Your task to perform on an android device: Go to Maps Image 0: 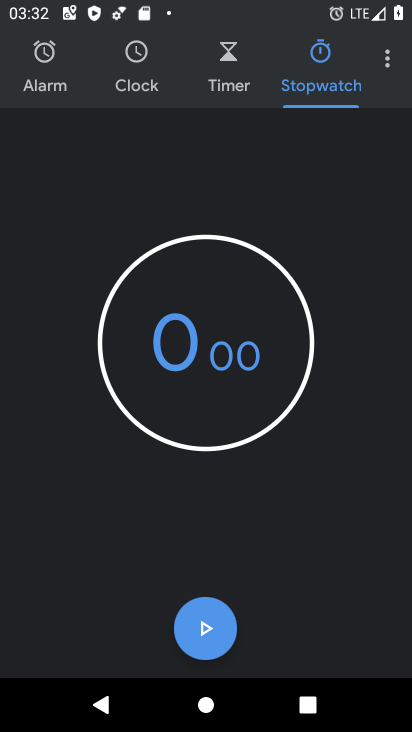
Step 0: press home button
Your task to perform on an android device: Go to Maps Image 1: 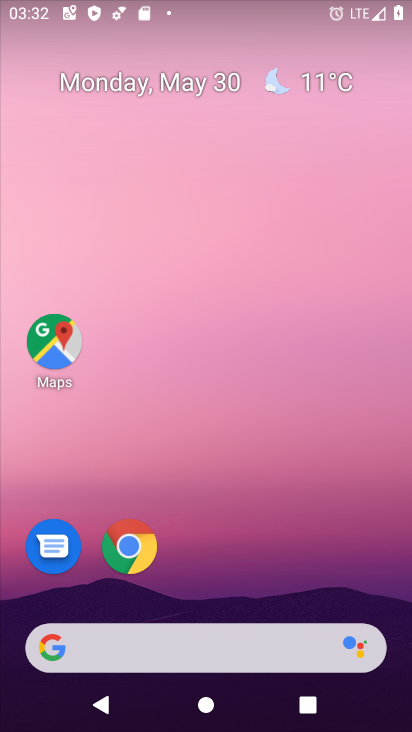
Step 1: click (55, 334)
Your task to perform on an android device: Go to Maps Image 2: 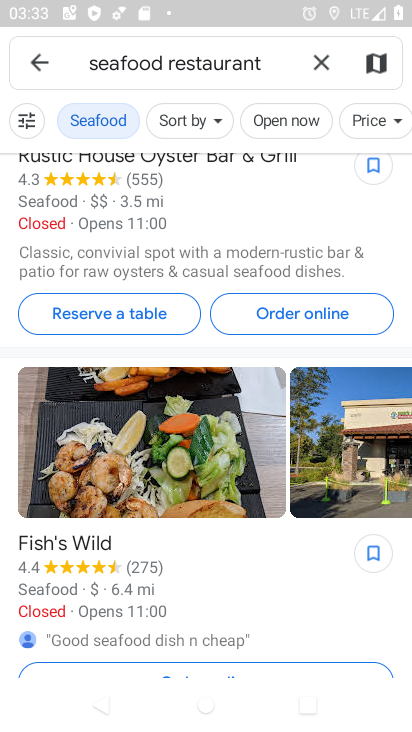
Step 2: click (48, 57)
Your task to perform on an android device: Go to Maps Image 3: 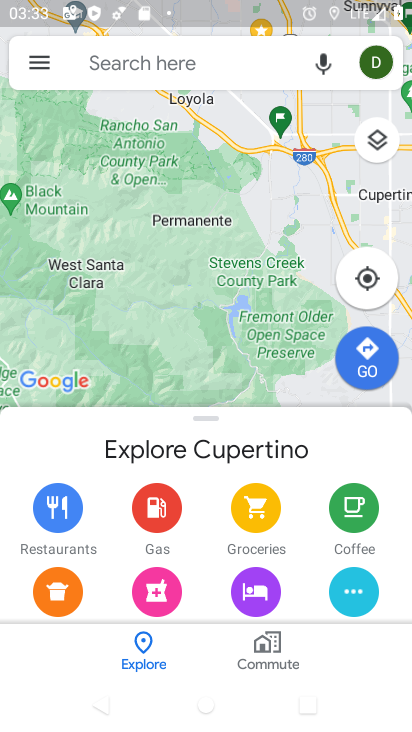
Step 3: task complete